Your task to perform on an android device: Go to Amazon Image 0: 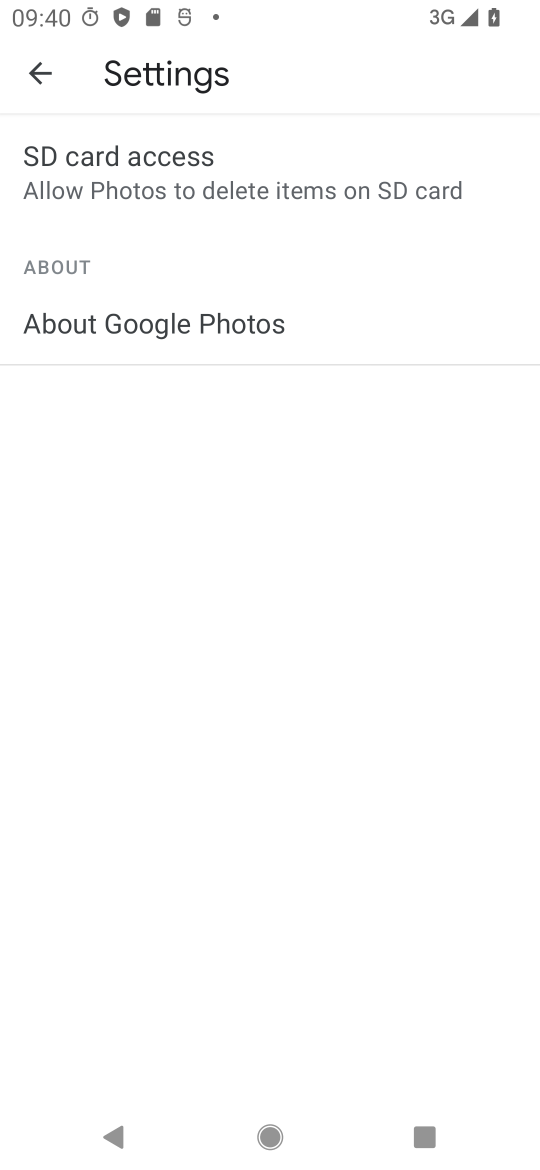
Step 0: press home button
Your task to perform on an android device: Go to Amazon Image 1: 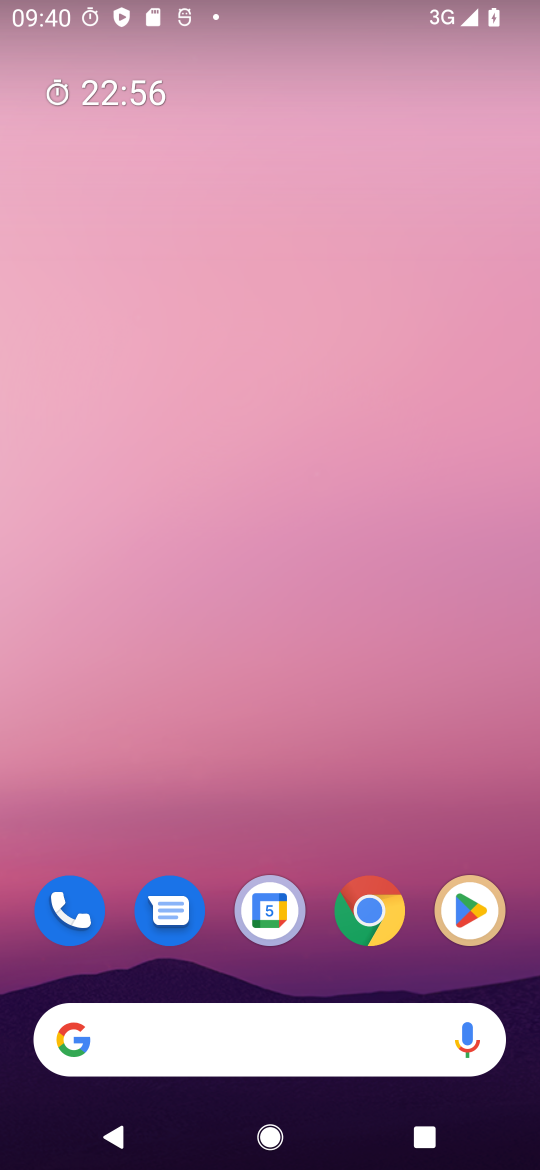
Step 1: drag from (294, 1035) to (300, 120)
Your task to perform on an android device: Go to Amazon Image 2: 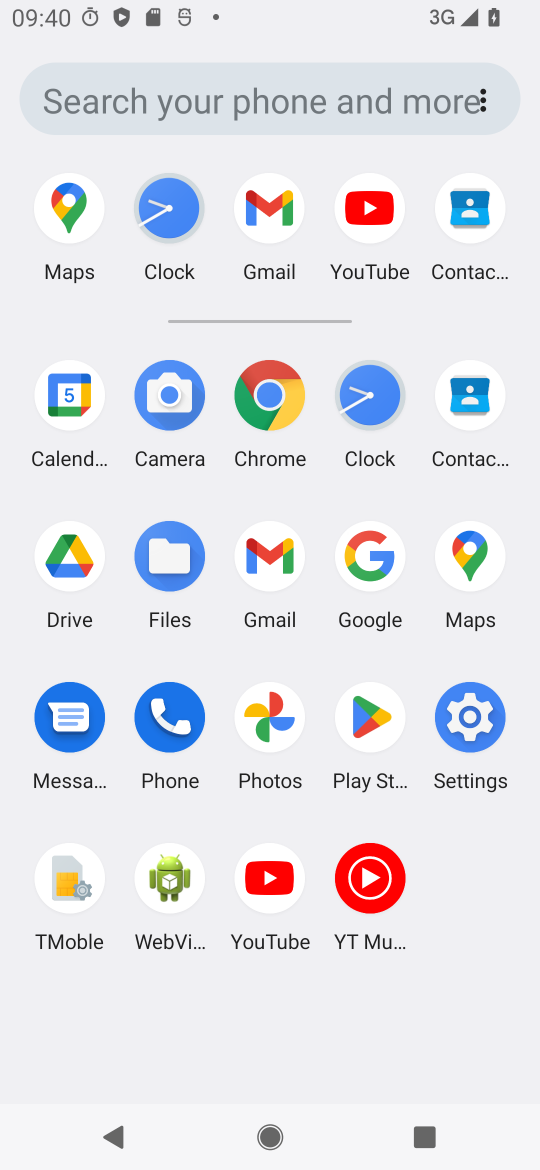
Step 2: click (243, 392)
Your task to perform on an android device: Go to Amazon Image 3: 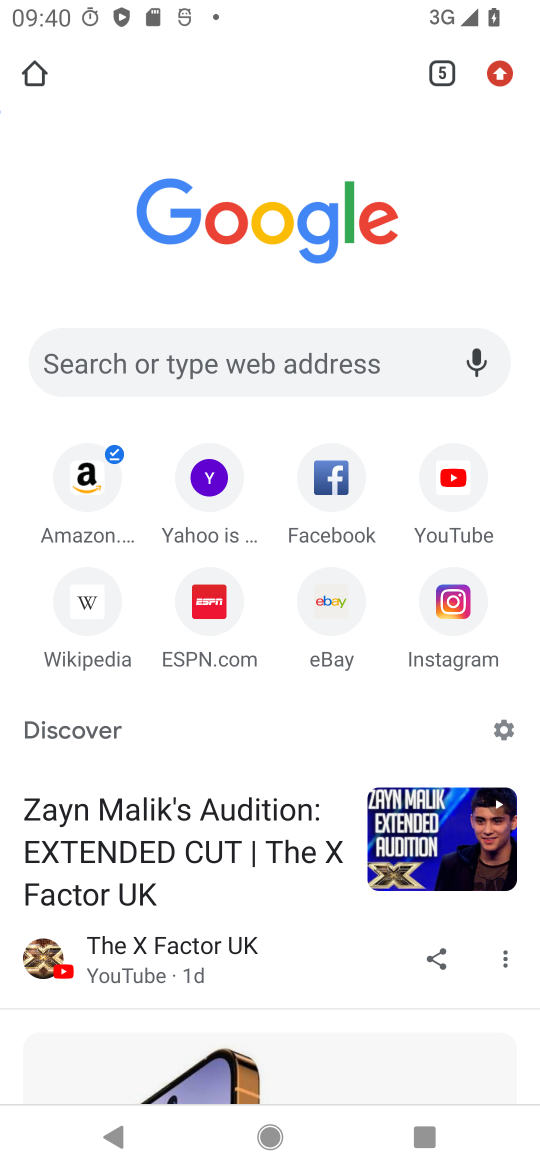
Step 3: click (85, 474)
Your task to perform on an android device: Go to Amazon Image 4: 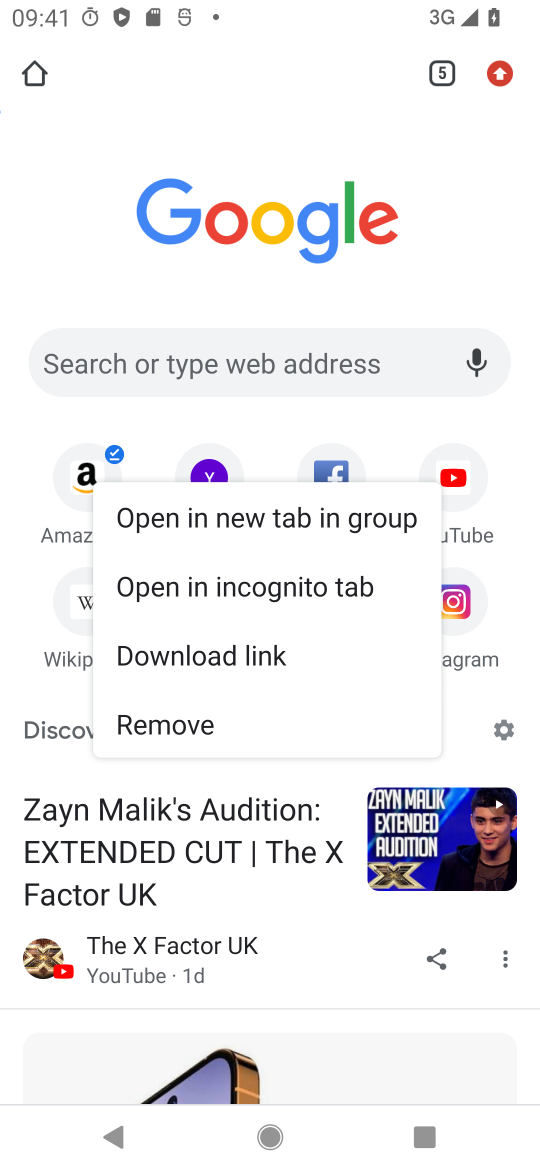
Step 4: click (75, 465)
Your task to perform on an android device: Go to Amazon Image 5: 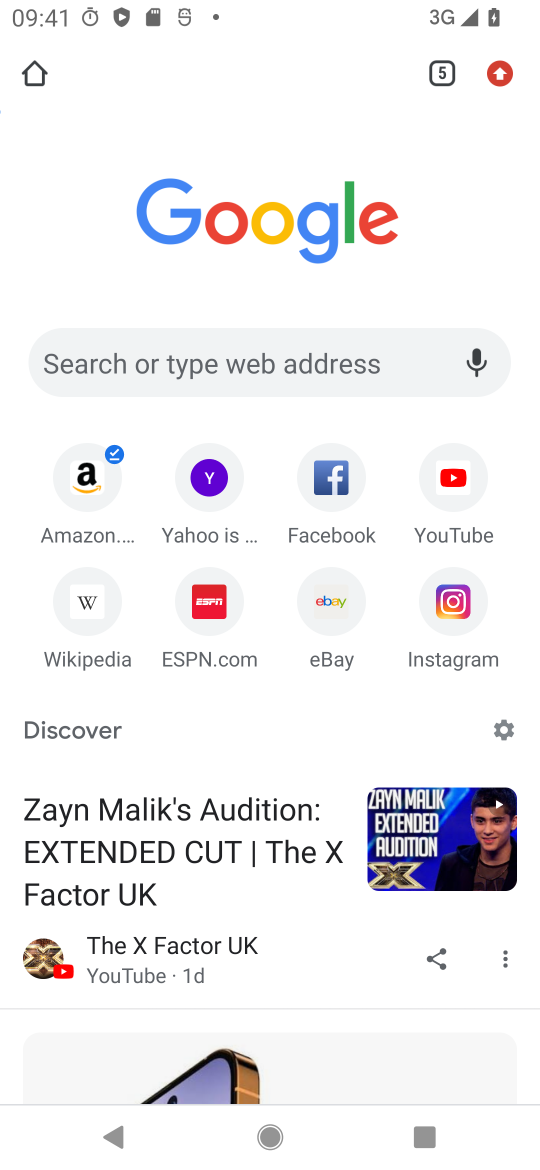
Step 5: click (92, 481)
Your task to perform on an android device: Go to Amazon Image 6: 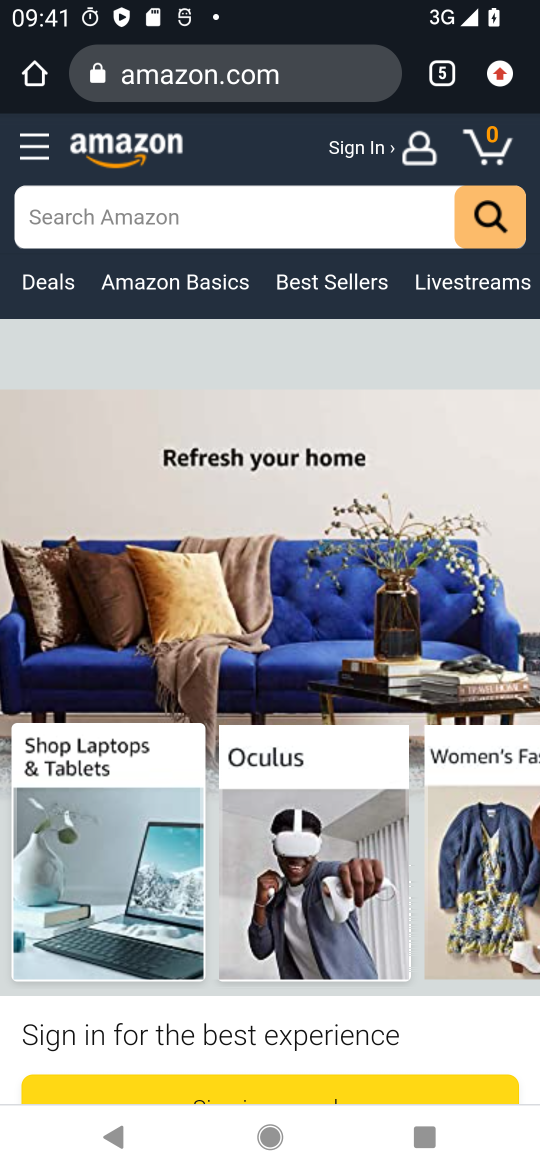
Step 6: task complete